Your task to perform on an android device: see creations saved in the google photos Image 0: 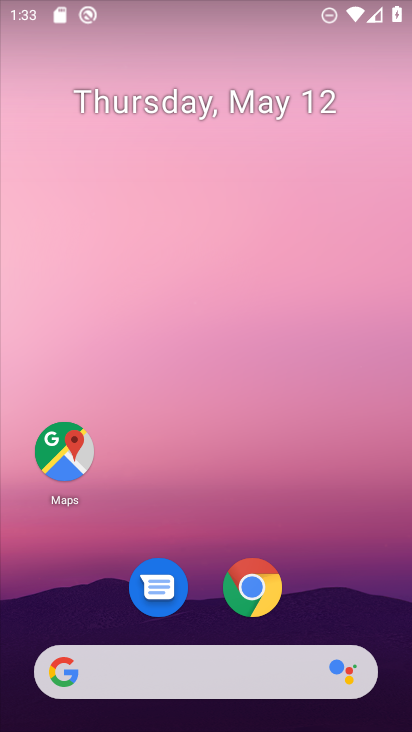
Step 0: drag from (340, 599) to (203, 50)
Your task to perform on an android device: see creations saved in the google photos Image 1: 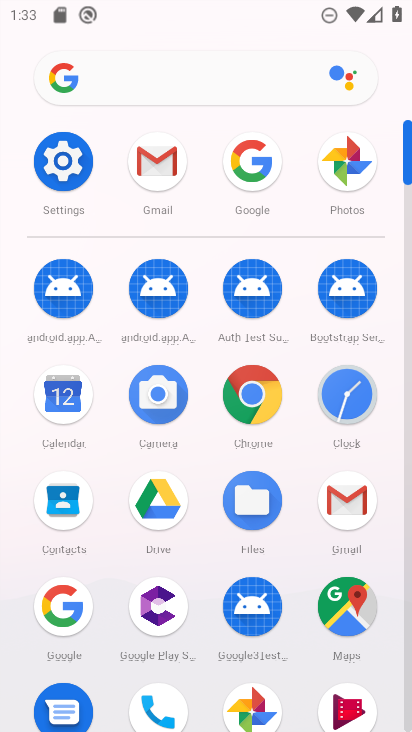
Step 1: click (345, 155)
Your task to perform on an android device: see creations saved in the google photos Image 2: 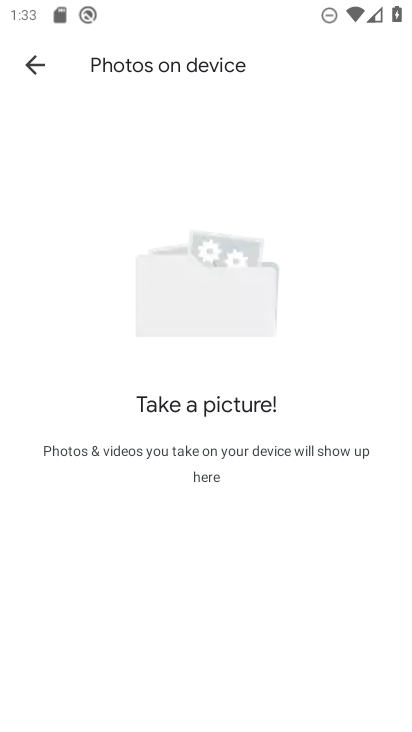
Step 2: press back button
Your task to perform on an android device: see creations saved in the google photos Image 3: 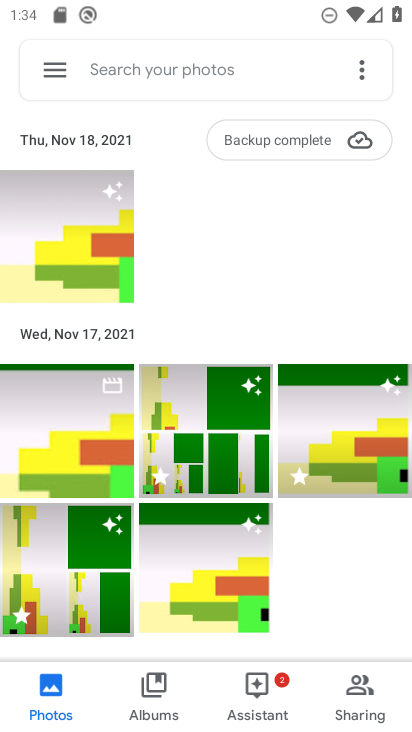
Step 3: click (177, 71)
Your task to perform on an android device: see creations saved in the google photos Image 4: 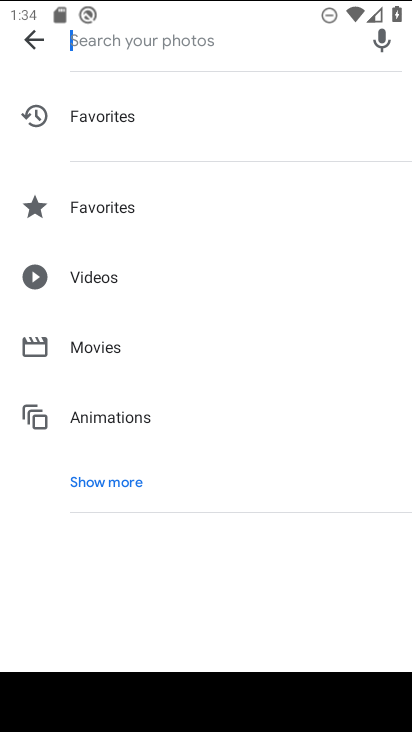
Step 4: click (109, 484)
Your task to perform on an android device: see creations saved in the google photos Image 5: 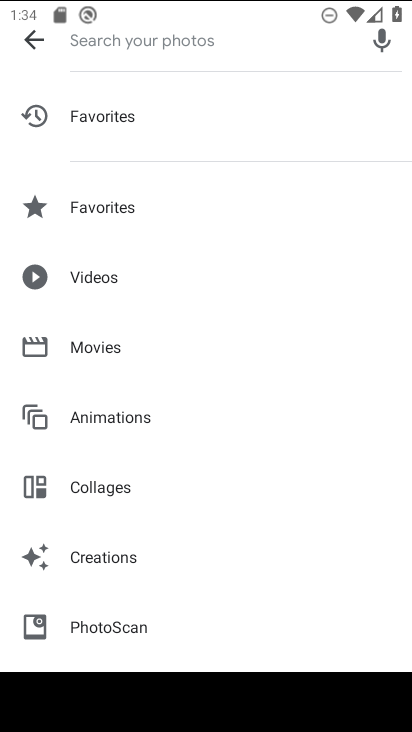
Step 5: click (108, 552)
Your task to perform on an android device: see creations saved in the google photos Image 6: 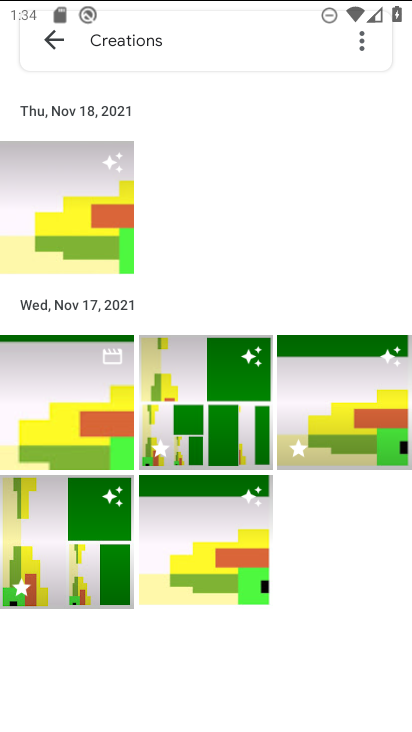
Step 6: click (45, 42)
Your task to perform on an android device: see creations saved in the google photos Image 7: 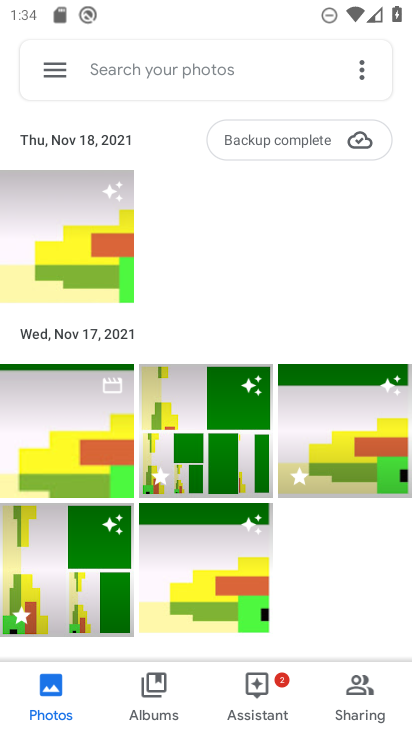
Step 7: drag from (184, 539) to (224, 247)
Your task to perform on an android device: see creations saved in the google photos Image 8: 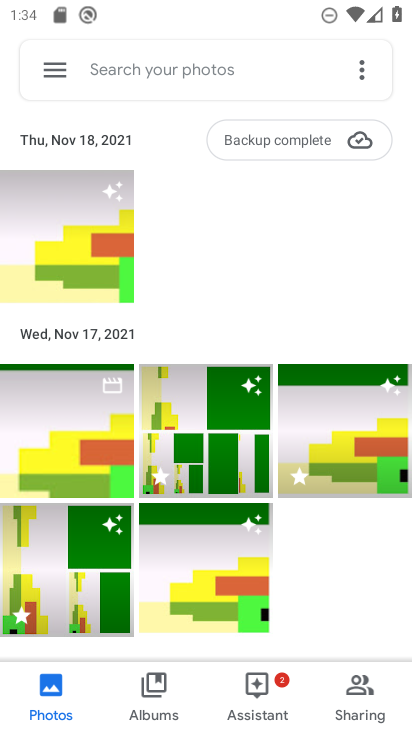
Step 8: drag from (330, 591) to (308, 319)
Your task to perform on an android device: see creations saved in the google photos Image 9: 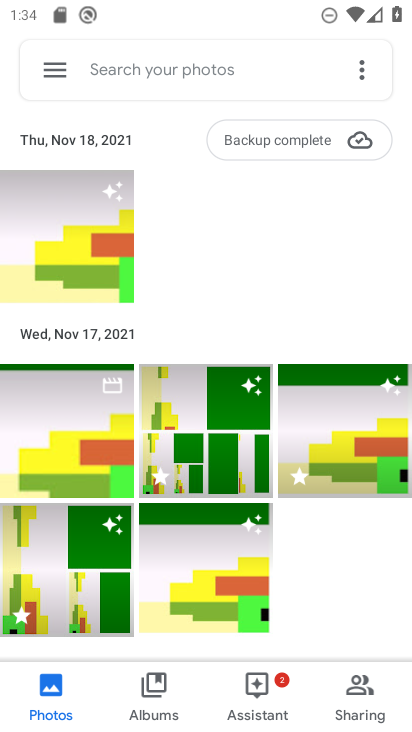
Step 9: click (162, 682)
Your task to perform on an android device: see creations saved in the google photos Image 10: 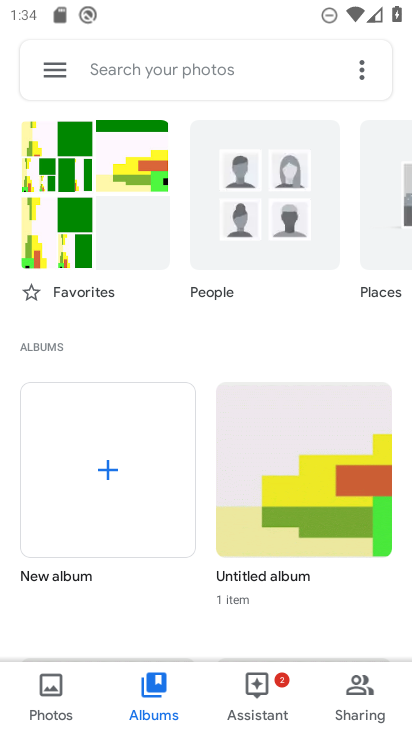
Step 10: click (255, 703)
Your task to perform on an android device: see creations saved in the google photos Image 11: 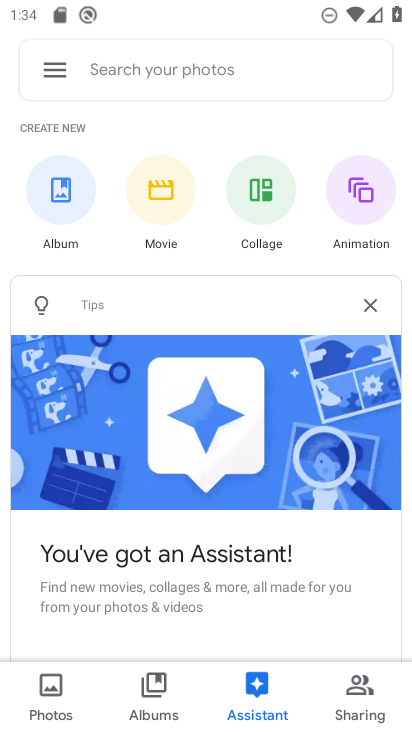
Step 11: click (59, 696)
Your task to perform on an android device: see creations saved in the google photos Image 12: 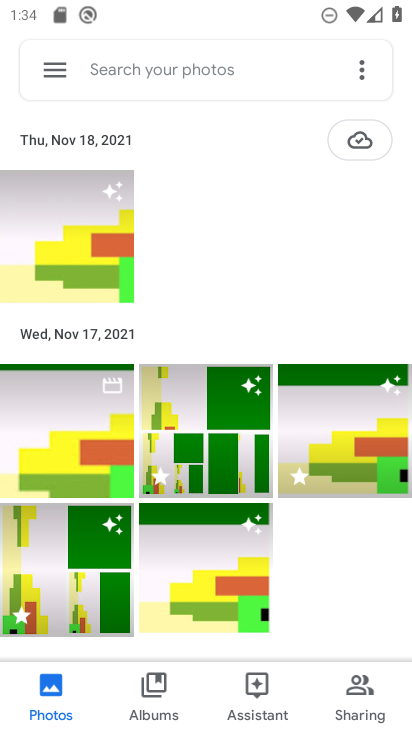
Step 12: task complete